Your task to perform on an android device: turn on notifications settings in the gmail app Image 0: 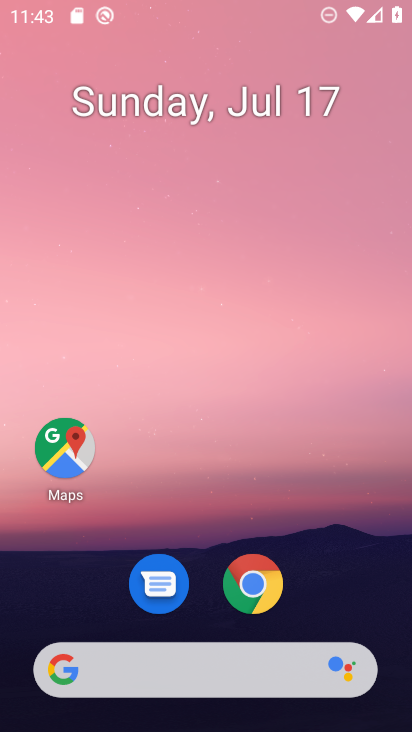
Step 0: press home button
Your task to perform on an android device: turn on notifications settings in the gmail app Image 1: 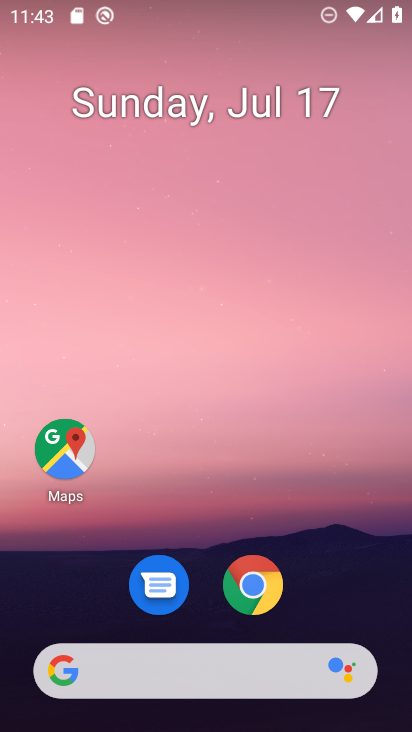
Step 1: drag from (182, 667) to (315, 84)
Your task to perform on an android device: turn on notifications settings in the gmail app Image 2: 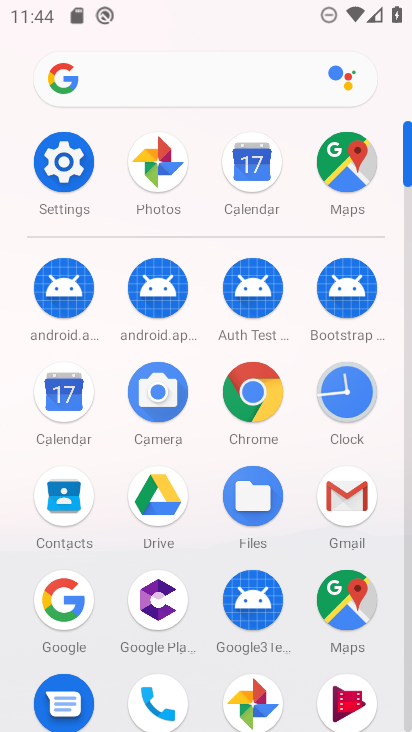
Step 2: click (342, 493)
Your task to perform on an android device: turn on notifications settings in the gmail app Image 3: 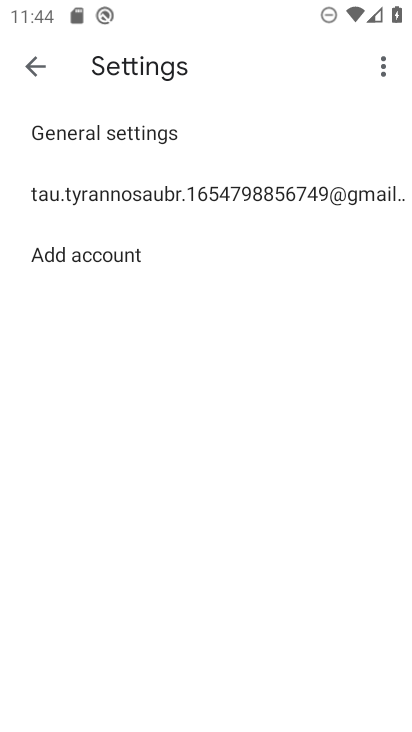
Step 3: click (197, 201)
Your task to perform on an android device: turn on notifications settings in the gmail app Image 4: 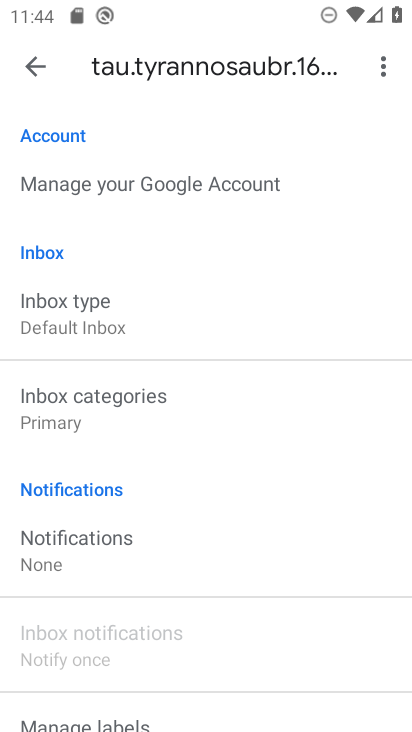
Step 4: click (88, 547)
Your task to perform on an android device: turn on notifications settings in the gmail app Image 5: 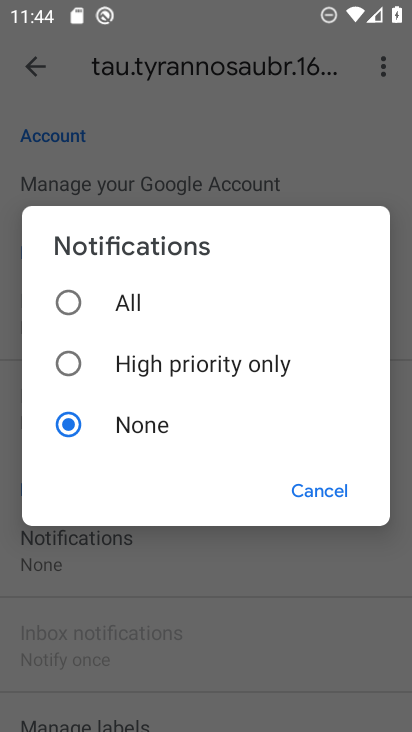
Step 5: click (69, 294)
Your task to perform on an android device: turn on notifications settings in the gmail app Image 6: 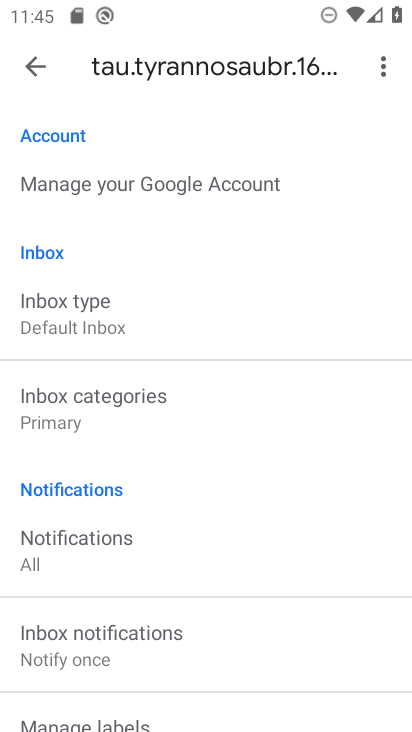
Step 6: task complete